Your task to perform on an android device: Open display settings Image 0: 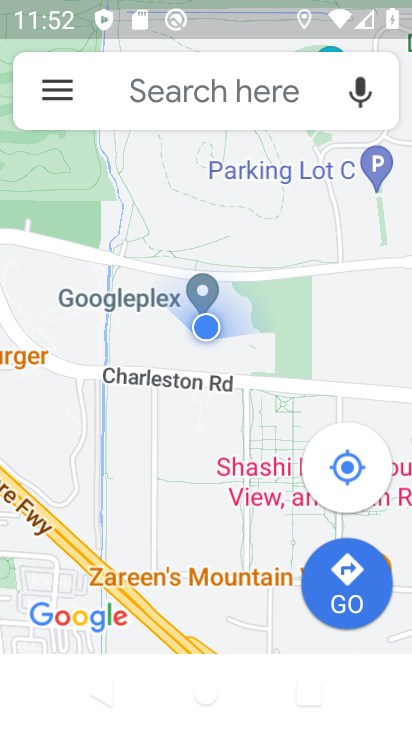
Step 0: press home button
Your task to perform on an android device: Open display settings Image 1: 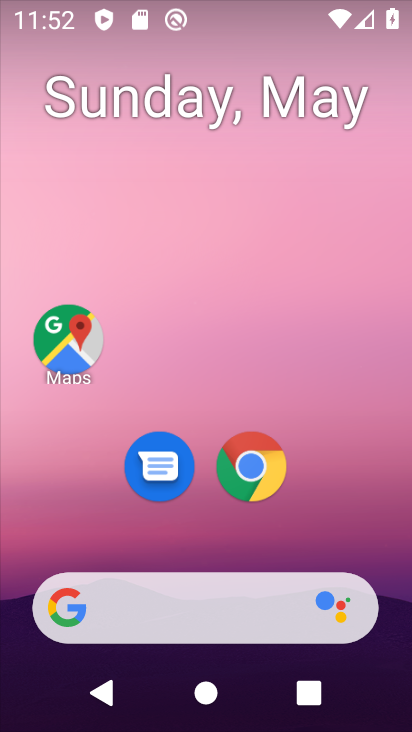
Step 1: drag from (325, 552) to (251, 51)
Your task to perform on an android device: Open display settings Image 2: 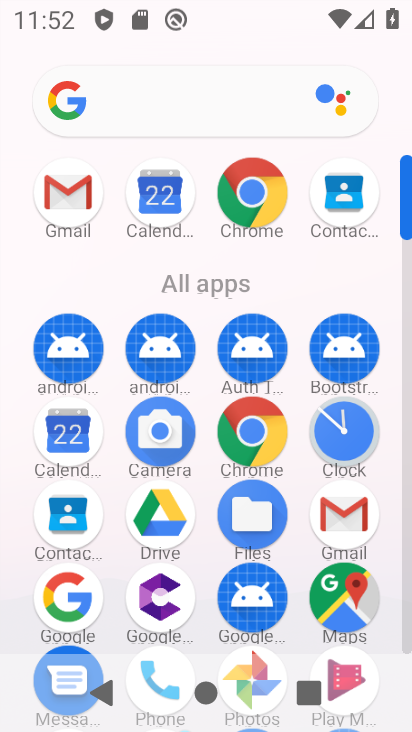
Step 2: click (406, 642)
Your task to perform on an android device: Open display settings Image 3: 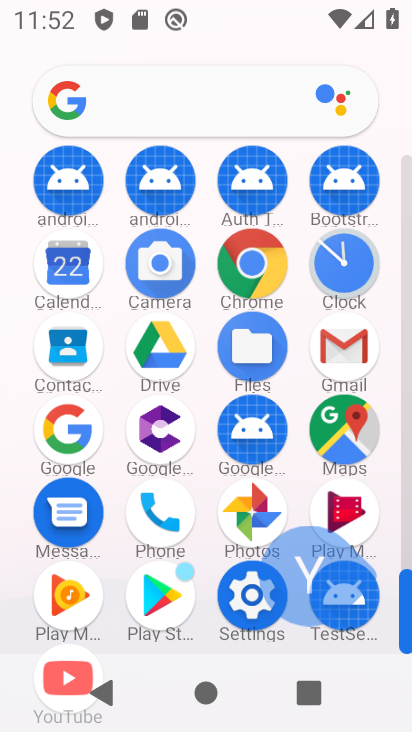
Step 3: click (406, 642)
Your task to perform on an android device: Open display settings Image 4: 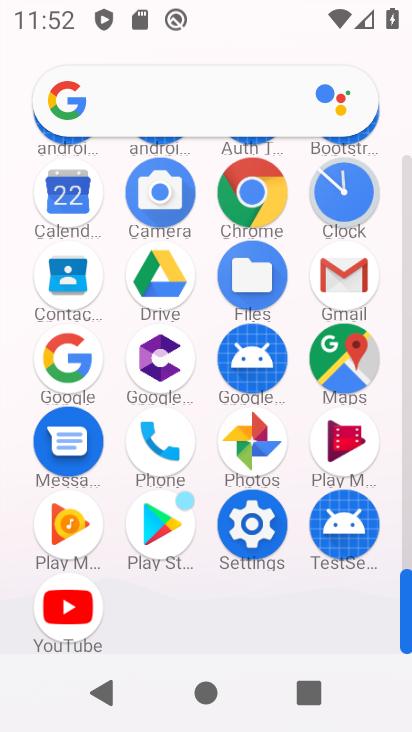
Step 4: click (255, 539)
Your task to perform on an android device: Open display settings Image 5: 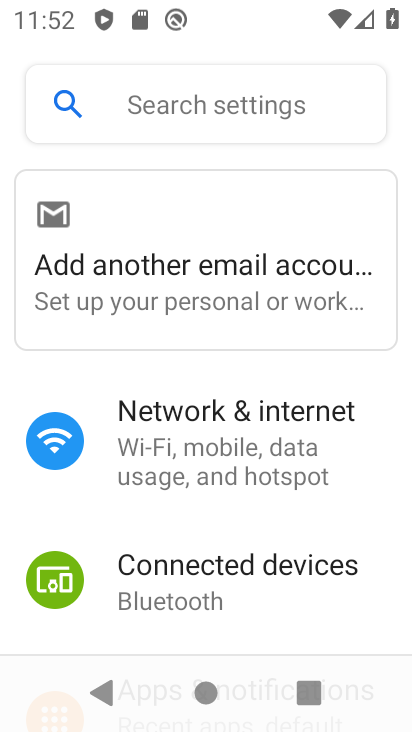
Step 5: drag from (249, 561) to (232, 56)
Your task to perform on an android device: Open display settings Image 6: 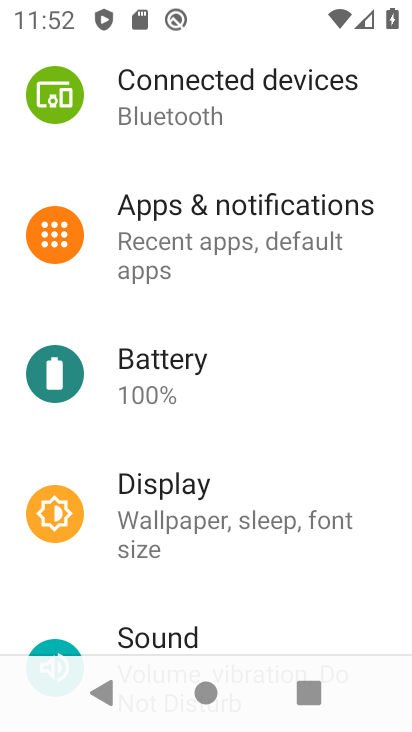
Step 6: click (221, 474)
Your task to perform on an android device: Open display settings Image 7: 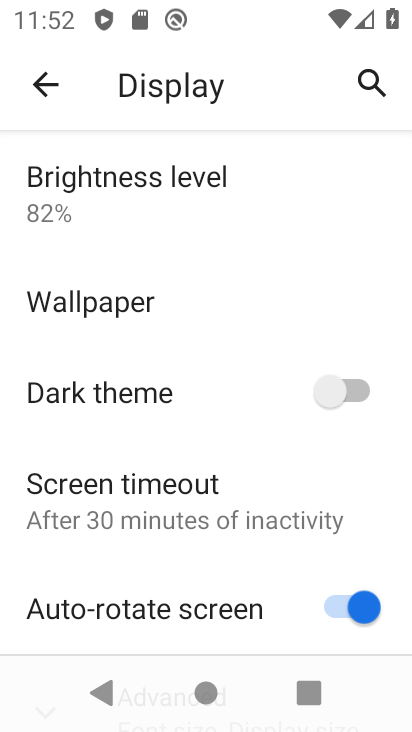
Step 7: task complete